Your task to perform on an android device: Go to Google Image 0: 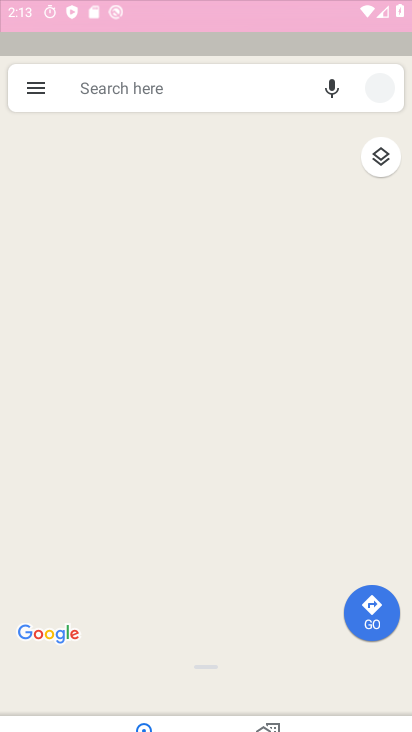
Step 0: drag from (226, 619) to (288, 196)
Your task to perform on an android device: Go to Google Image 1: 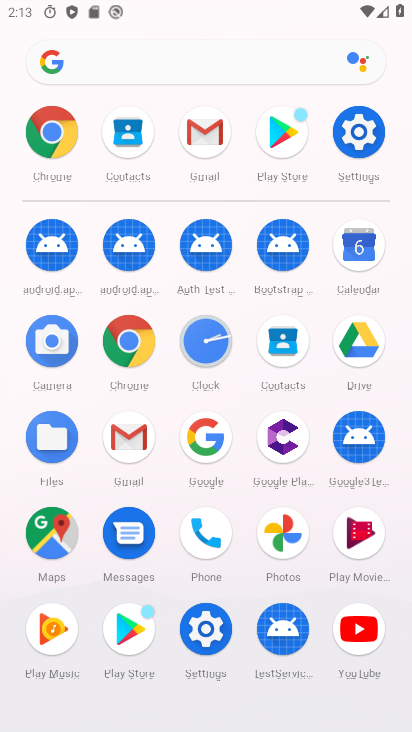
Step 1: click (191, 434)
Your task to perform on an android device: Go to Google Image 2: 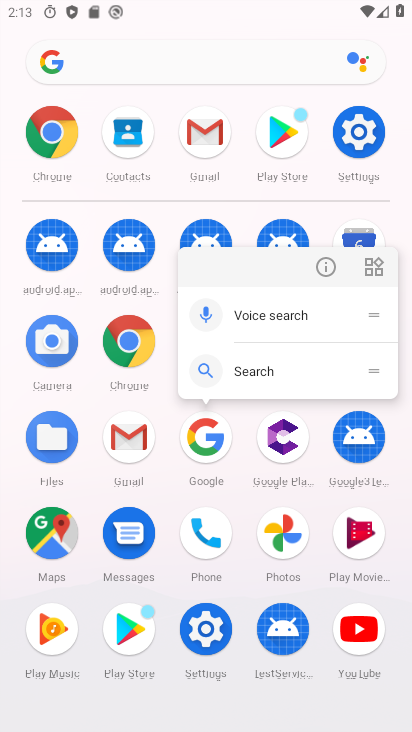
Step 2: click (325, 271)
Your task to perform on an android device: Go to Google Image 3: 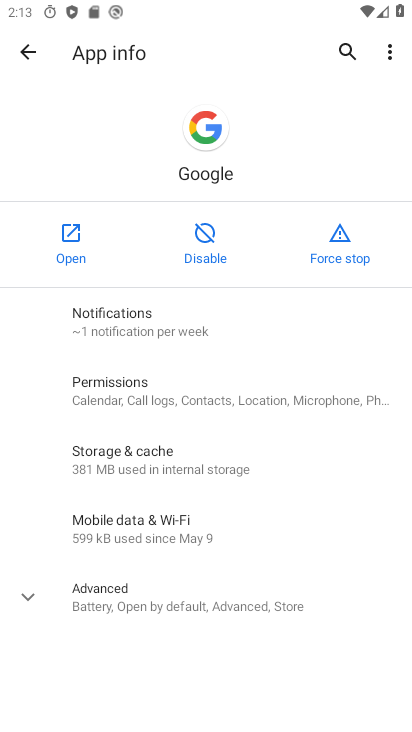
Step 3: click (67, 241)
Your task to perform on an android device: Go to Google Image 4: 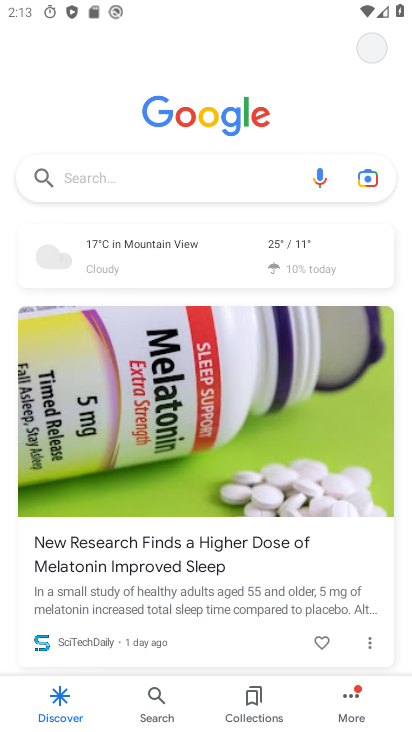
Step 4: task complete